Your task to perform on an android device: turn pop-ups on in chrome Image 0: 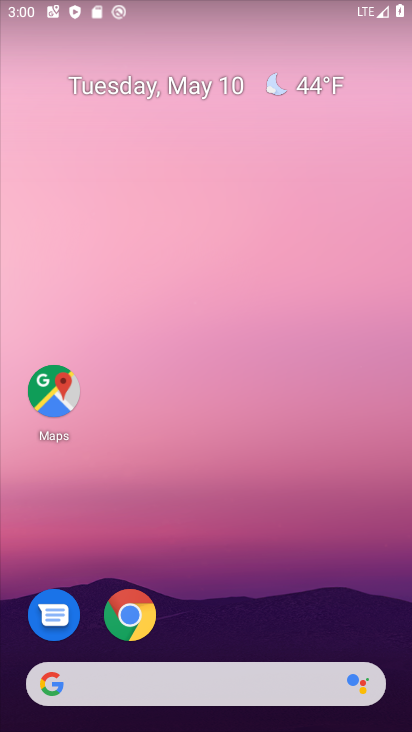
Step 0: press home button
Your task to perform on an android device: turn pop-ups on in chrome Image 1: 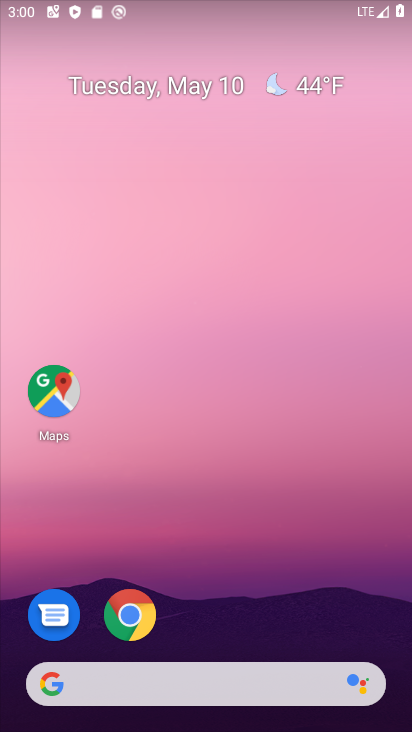
Step 1: click (143, 629)
Your task to perform on an android device: turn pop-ups on in chrome Image 2: 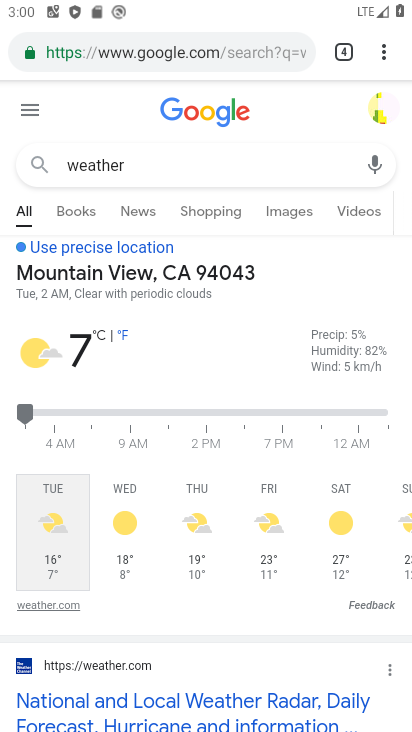
Step 2: drag from (381, 33) to (208, 590)
Your task to perform on an android device: turn pop-ups on in chrome Image 3: 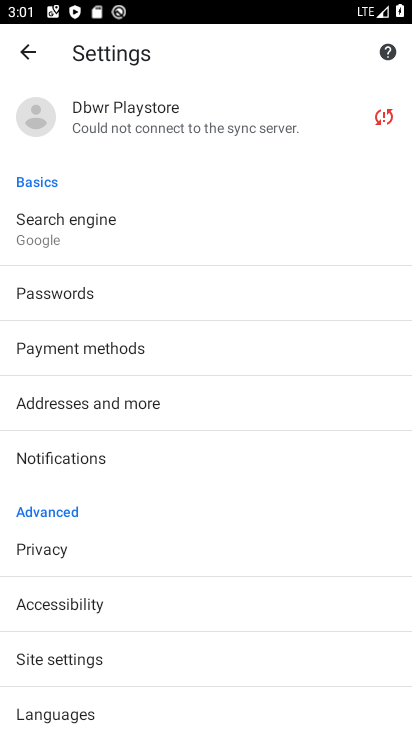
Step 3: click (105, 661)
Your task to perform on an android device: turn pop-ups on in chrome Image 4: 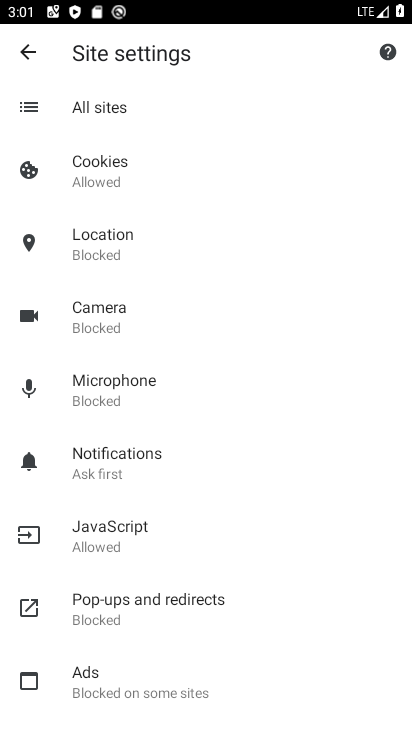
Step 4: click (174, 596)
Your task to perform on an android device: turn pop-ups on in chrome Image 5: 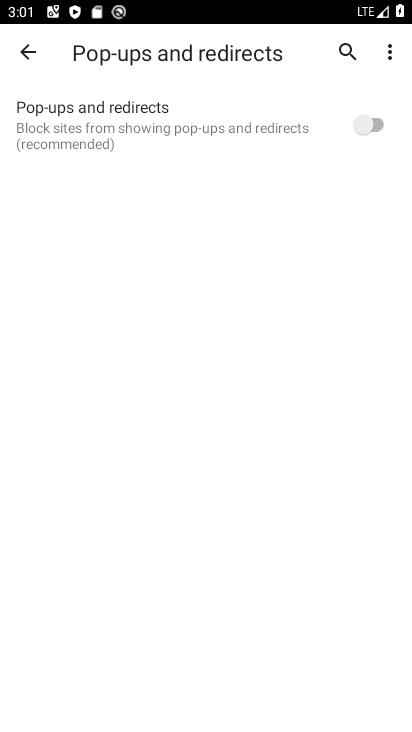
Step 5: click (380, 121)
Your task to perform on an android device: turn pop-ups on in chrome Image 6: 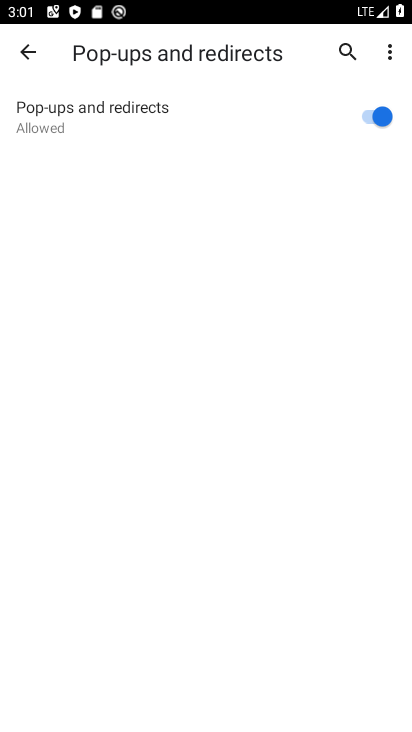
Step 6: task complete